Your task to perform on an android device: open app "ZOOM Cloud Meetings" (install if not already installed), go to login, and select forgot password Image 0: 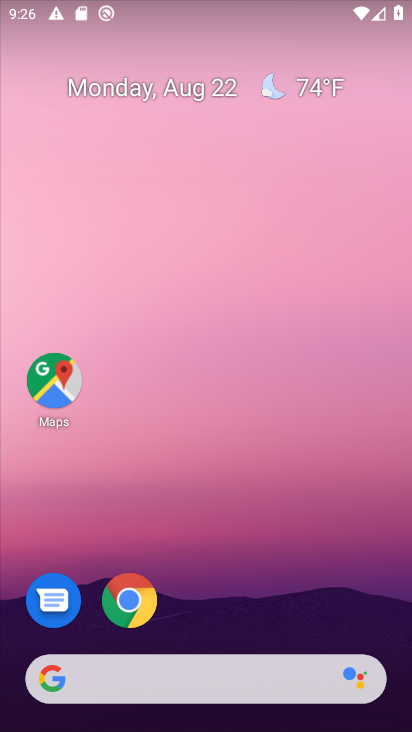
Step 0: drag from (218, 556) to (173, 146)
Your task to perform on an android device: open app "ZOOM Cloud Meetings" (install if not already installed), go to login, and select forgot password Image 1: 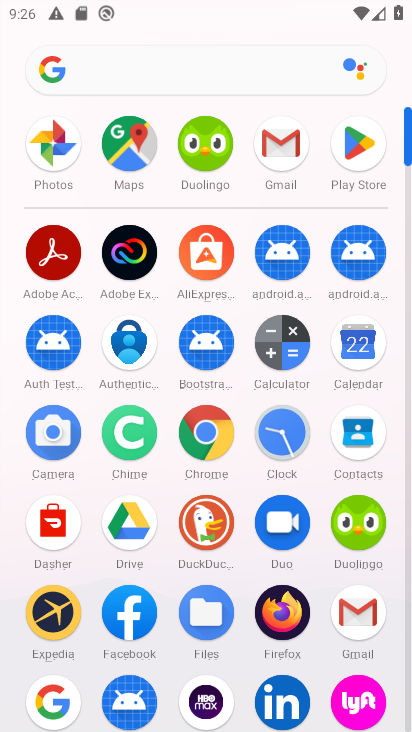
Step 1: click (342, 130)
Your task to perform on an android device: open app "ZOOM Cloud Meetings" (install if not already installed), go to login, and select forgot password Image 2: 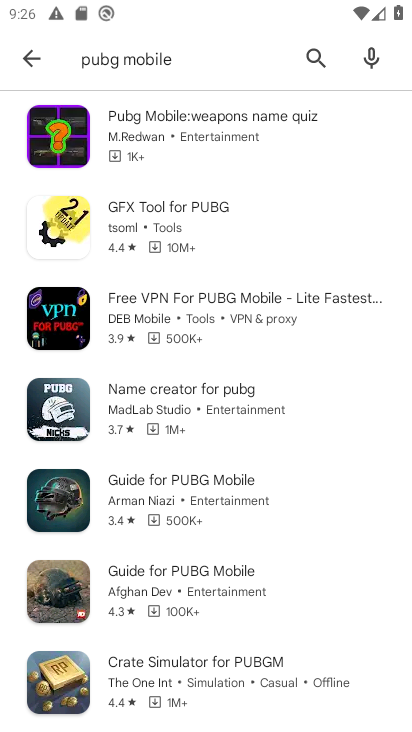
Step 2: drag from (304, 63) to (350, 63)
Your task to perform on an android device: open app "ZOOM Cloud Meetings" (install if not already installed), go to login, and select forgot password Image 3: 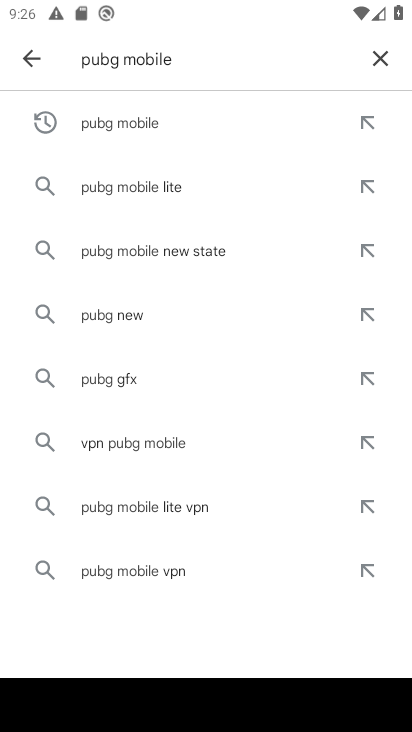
Step 3: click (374, 63)
Your task to perform on an android device: open app "ZOOM Cloud Meetings" (install if not already installed), go to login, and select forgot password Image 4: 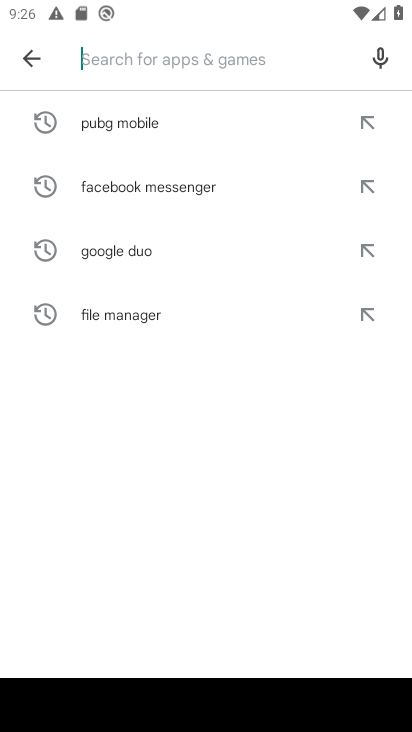
Step 4: type "ZOOM Cloud Meetings"
Your task to perform on an android device: open app "ZOOM Cloud Meetings" (install if not already installed), go to login, and select forgot password Image 5: 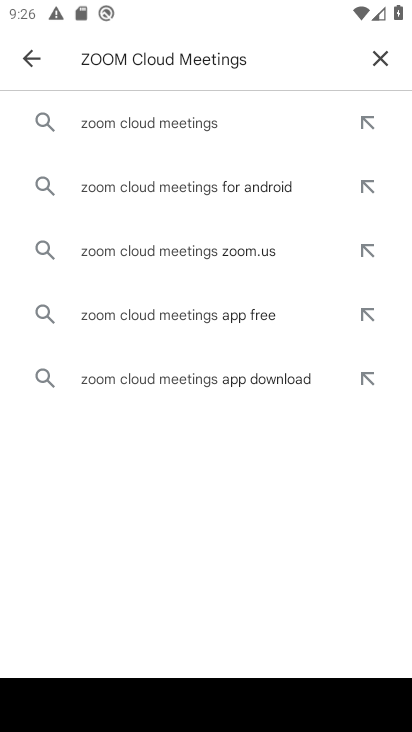
Step 5: type "ZOOM Cloud Meetings"
Your task to perform on an android device: open app "ZOOM Cloud Meetings" (install if not already installed), go to login, and select forgot password Image 6: 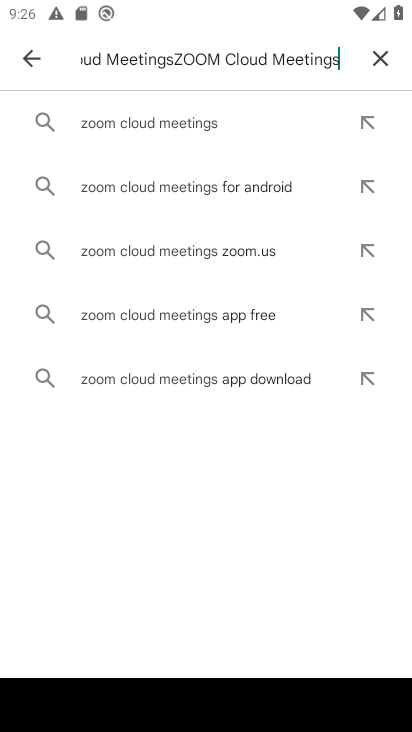
Step 6: type ""
Your task to perform on an android device: open app "ZOOM Cloud Meetings" (install if not already installed), go to login, and select forgot password Image 7: 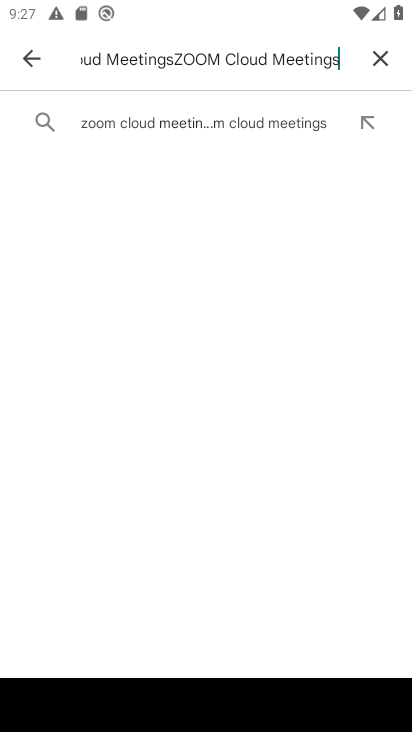
Step 7: click (180, 119)
Your task to perform on an android device: open app "ZOOM Cloud Meetings" (install if not already installed), go to login, and select forgot password Image 8: 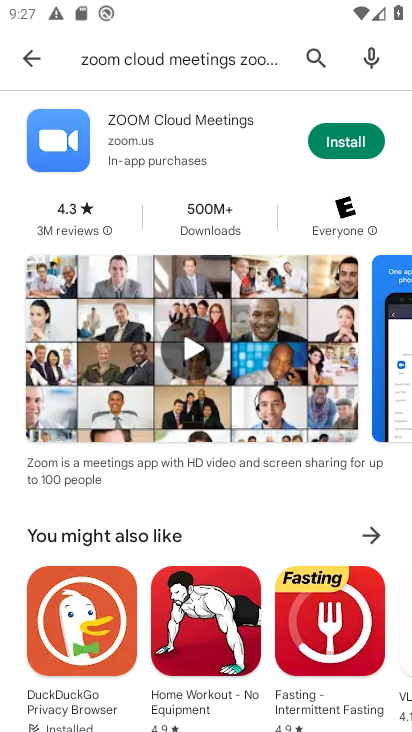
Step 8: click (342, 143)
Your task to perform on an android device: open app "ZOOM Cloud Meetings" (install if not already installed), go to login, and select forgot password Image 9: 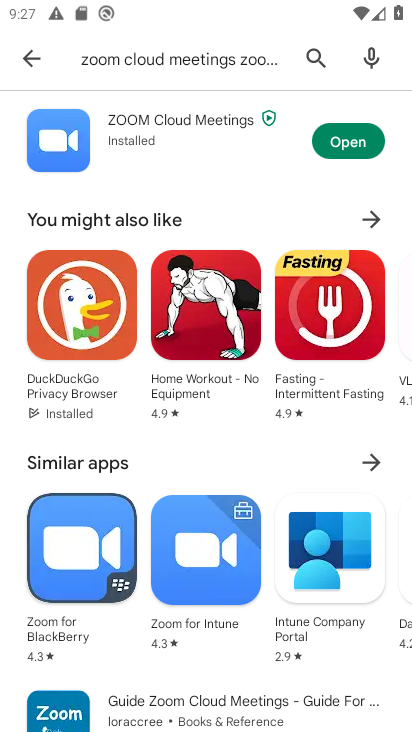
Step 9: click (331, 130)
Your task to perform on an android device: open app "ZOOM Cloud Meetings" (install if not already installed), go to login, and select forgot password Image 10: 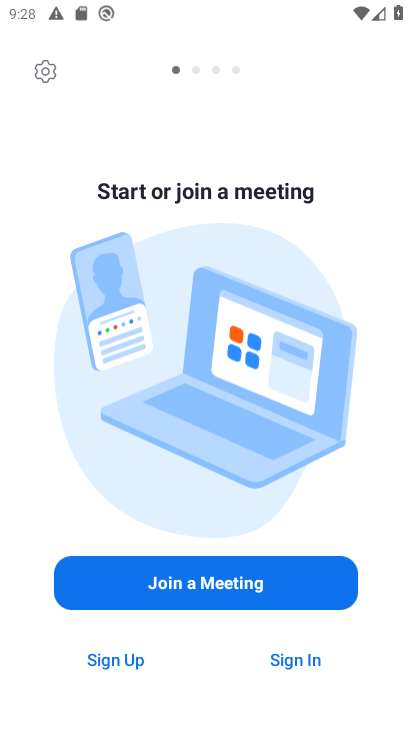
Step 10: task complete